Your task to perform on an android device: set the stopwatch Image 0: 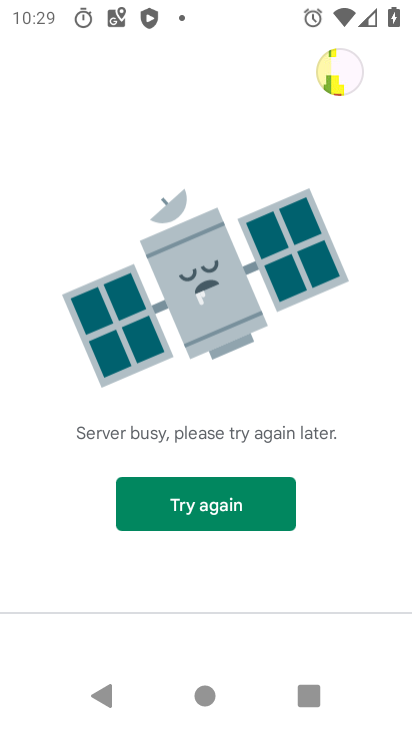
Step 0: press home button
Your task to perform on an android device: set the stopwatch Image 1: 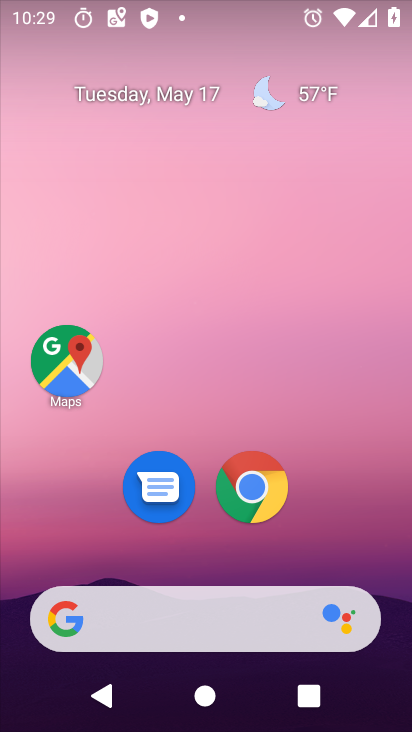
Step 1: drag from (223, 723) to (229, 115)
Your task to perform on an android device: set the stopwatch Image 2: 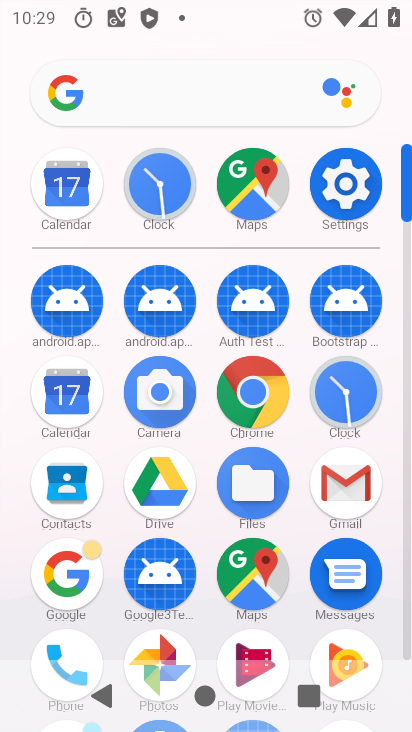
Step 2: click (344, 388)
Your task to perform on an android device: set the stopwatch Image 3: 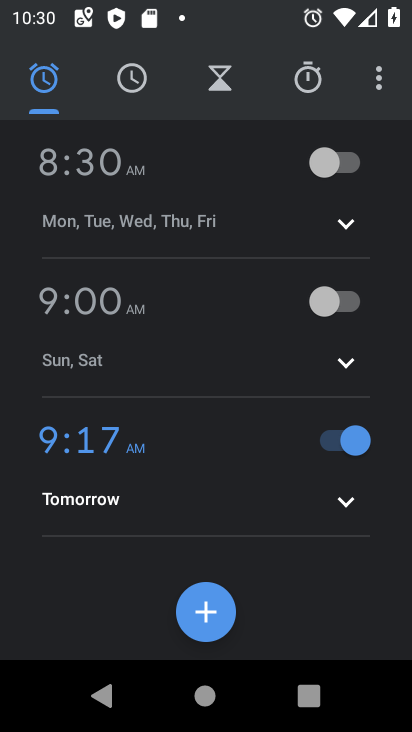
Step 3: click (307, 77)
Your task to perform on an android device: set the stopwatch Image 4: 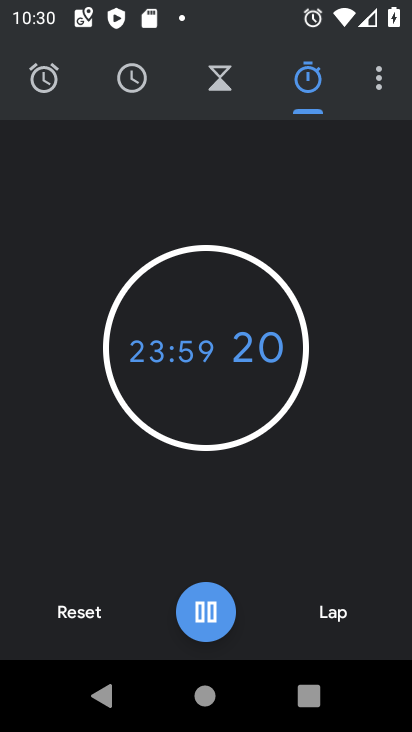
Step 4: click (84, 611)
Your task to perform on an android device: set the stopwatch Image 5: 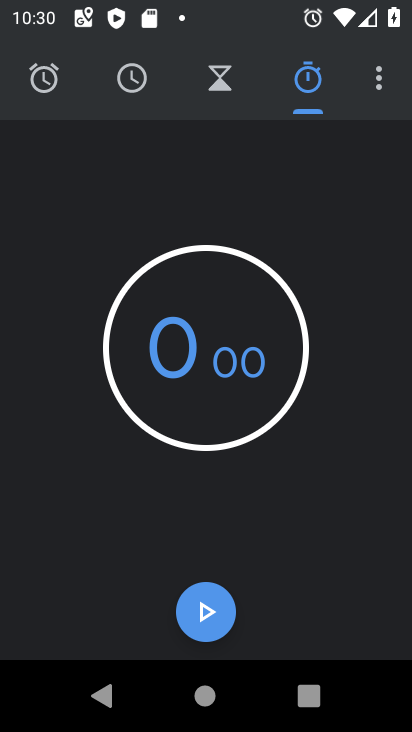
Step 5: click (222, 340)
Your task to perform on an android device: set the stopwatch Image 6: 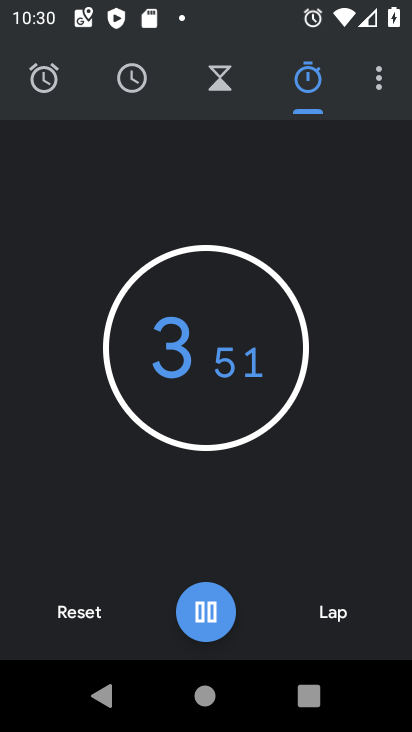
Step 6: type "8765"
Your task to perform on an android device: set the stopwatch Image 7: 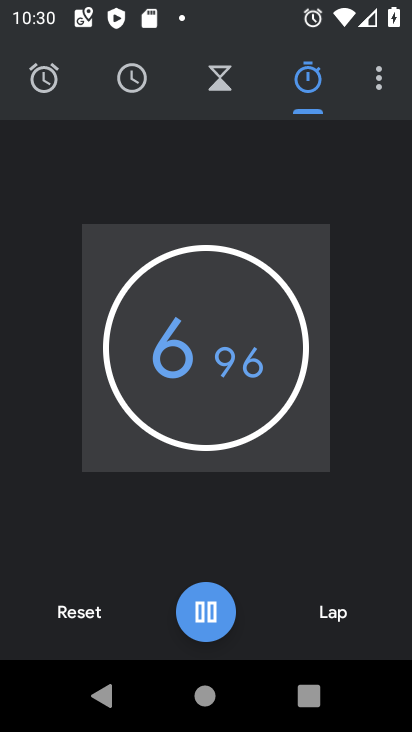
Step 7: task complete